Your task to perform on an android device: toggle data saver in the chrome app Image 0: 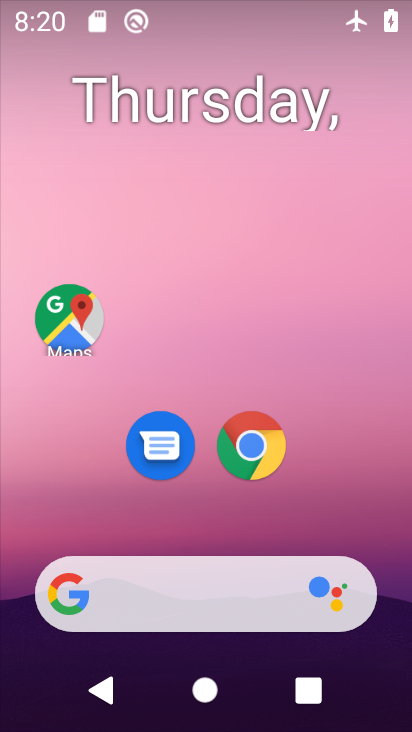
Step 0: click (255, 435)
Your task to perform on an android device: toggle data saver in the chrome app Image 1: 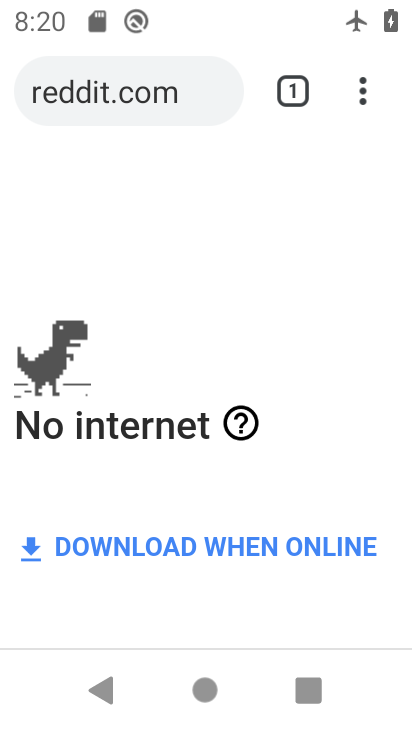
Step 1: click (360, 88)
Your task to perform on an android device: toggle data saver in the chrome app Image 2: 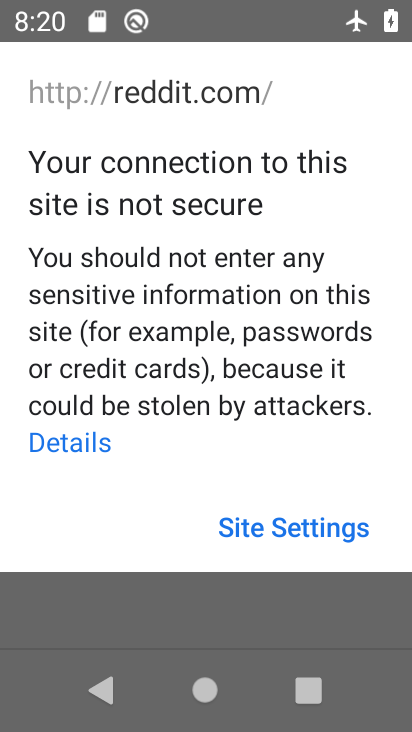
Step 2: press back button
Your task to perform on an android device: toggle data saver in the chrome app Image 3: 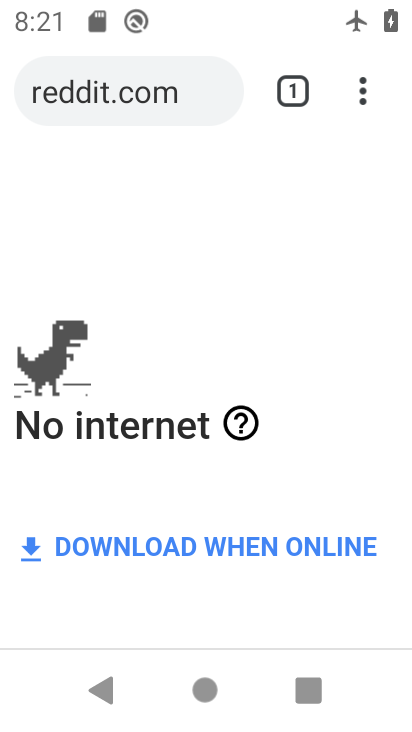
Step 3: click (360, 87)
Your task to perform on an android device: toggle data saver in the chrome app Image 4: 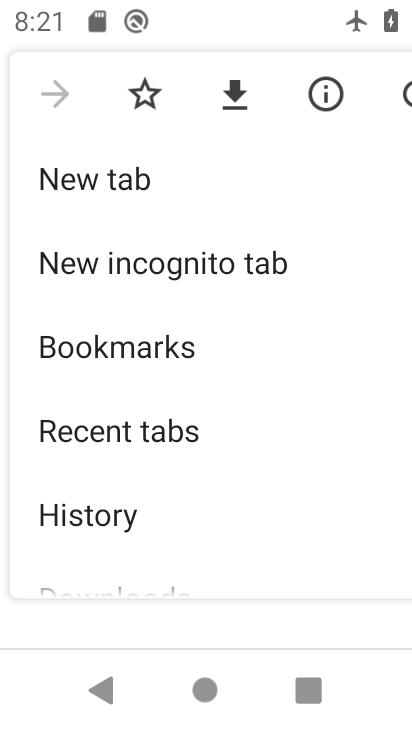
Step 4: drag from (184, 560) to (194, 176)
Your task to perform on an android device: toggle data saver in the chrome app Image 5: 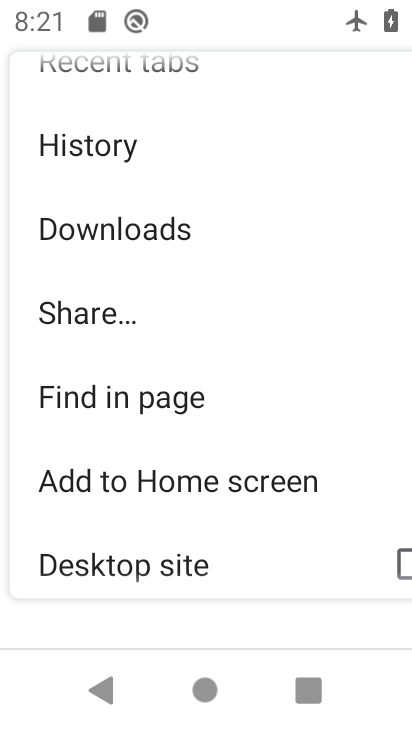
Step 5: drag from (154, 530) to (152, 191)
Your task to perform on an android device: toggle data saver in the chrome app Image 6: 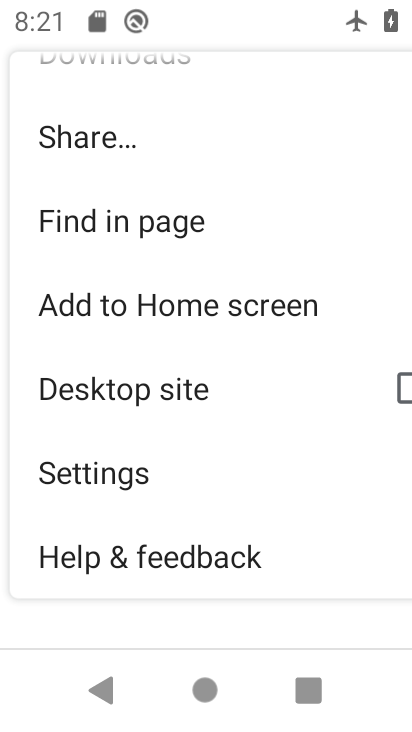
Step 6: click (85, 470)
Your task to perform on an android device: toggle data saver in the chrome app Image 7: 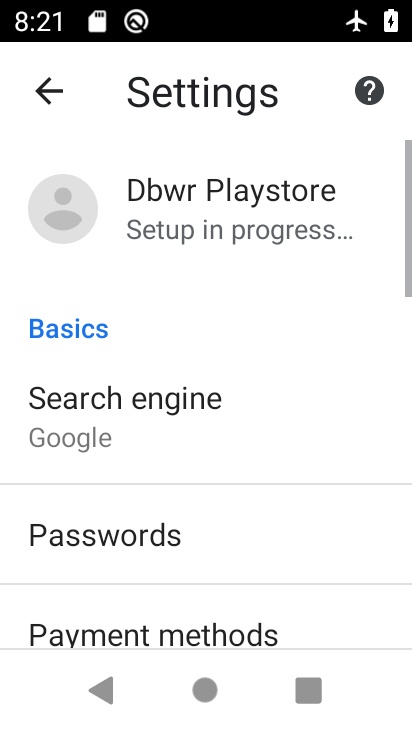
Step 7: drag from (177, 589) to (169, 191)
Your task to perform on an android device: toggle data saver in the chrome app Image 8: 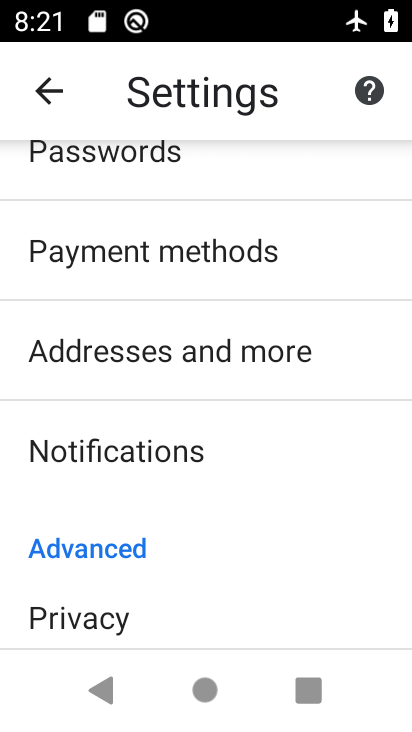
Step 8: drag from (188, 573) to (203, 288)
Your task to perform on an android device: toggle data saver in the chrome app Image 9: 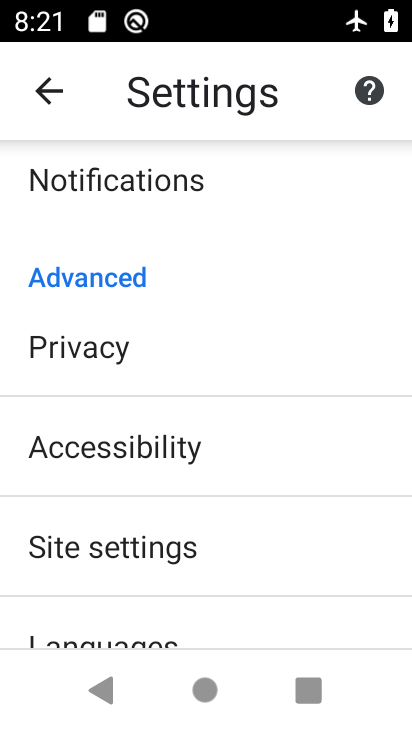
Step 9: drag from (150, 619) to (150, 342)
Your task to perform on an android device: toggle data saver in the chrome app Image 10: 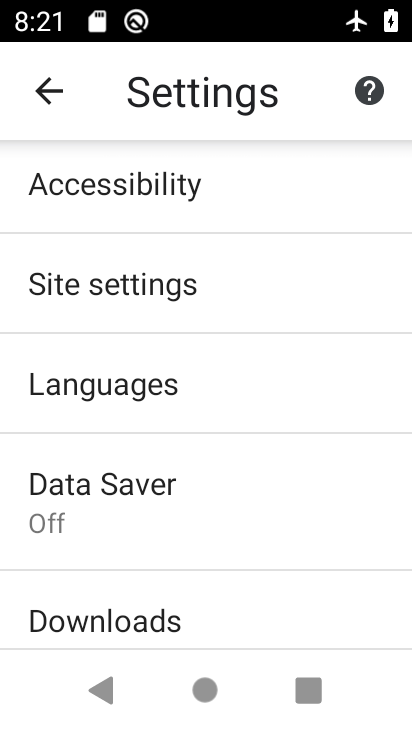
Step 10: click (102, 488)
Your task to perform on an android device: toggle data saver in the chrome app Image 11: 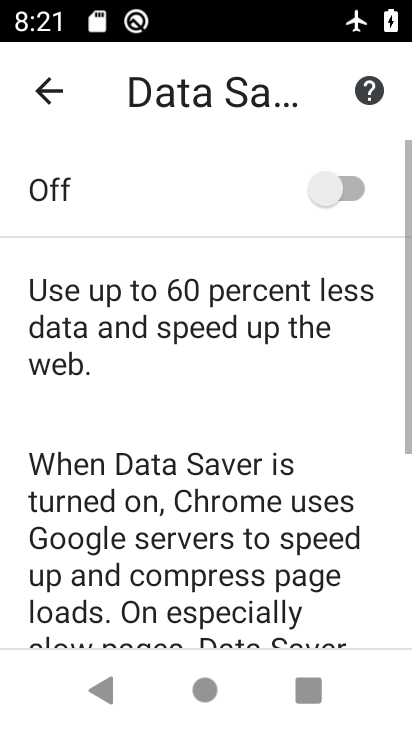
Step 11: click (344, 183)
Your task to perform on an android device: toggle data saver in the chrome app Image 12: 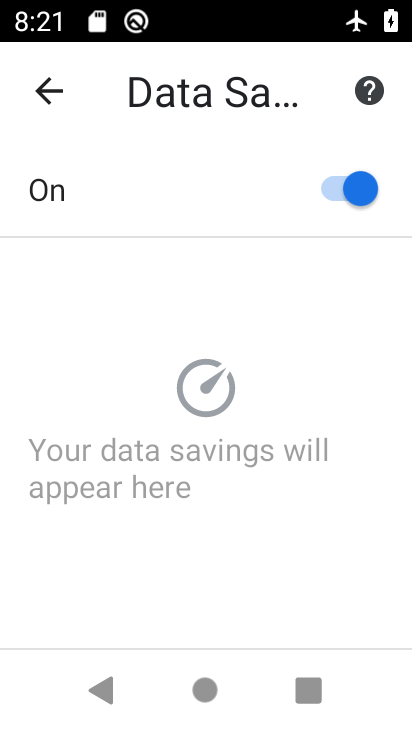
Step 12: task complete